Your task to perform on an android device: Add logitech g903 to the cart on newegg.com, then select checkout. Image 0: 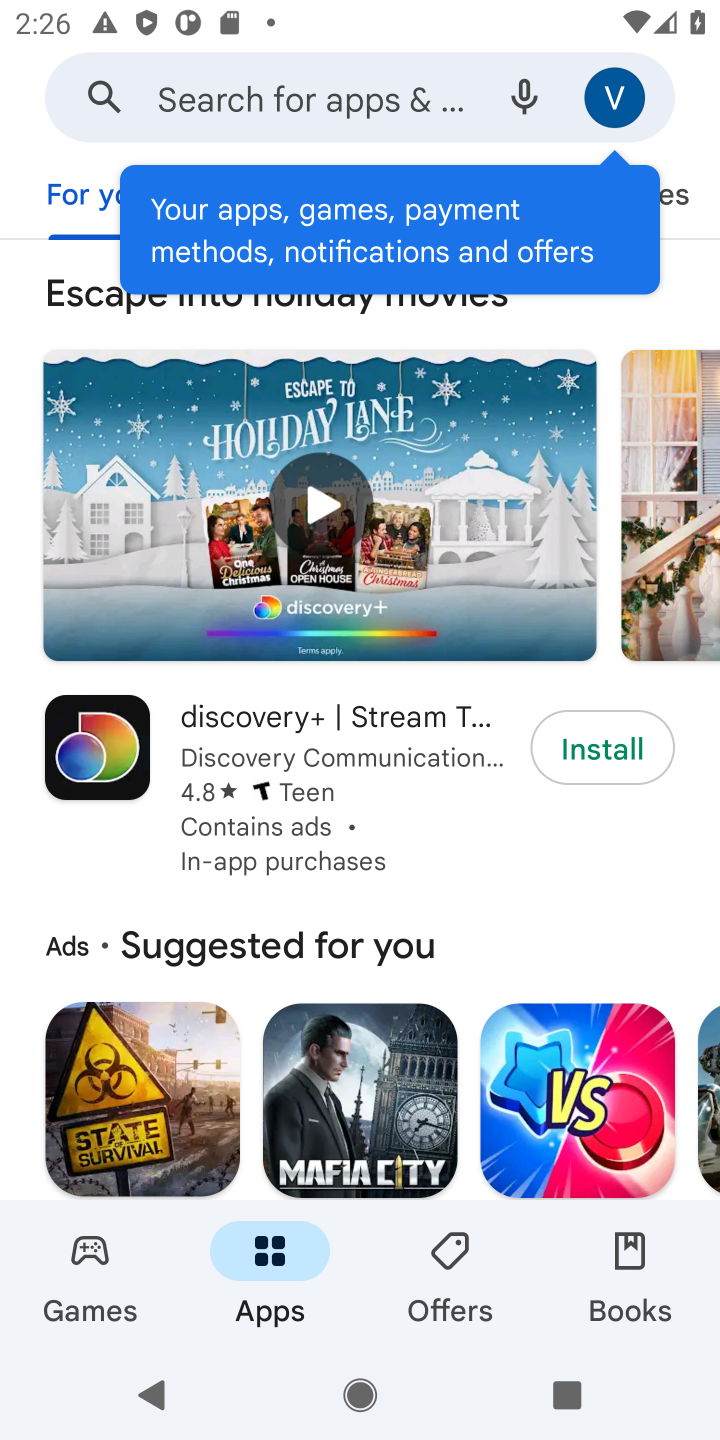
Step 0: press home button
Your task to perform on an android device: Add logitech g903 to the cart on newegg.com, then select checkout. Image 1: 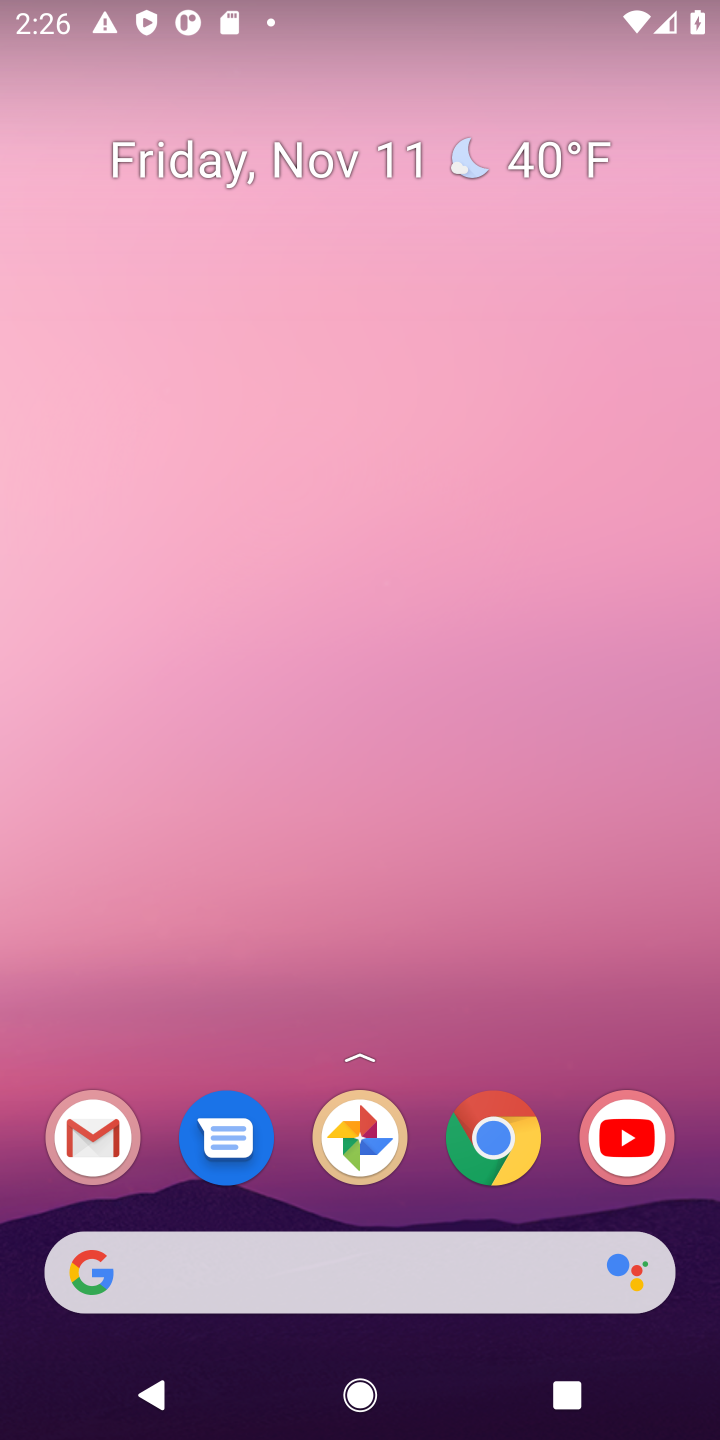
Step 1: click (487, 1167)
Your task to perform on an android device: Add logitech g903 to the cart on newegg.com, then select checkout. Image 2: 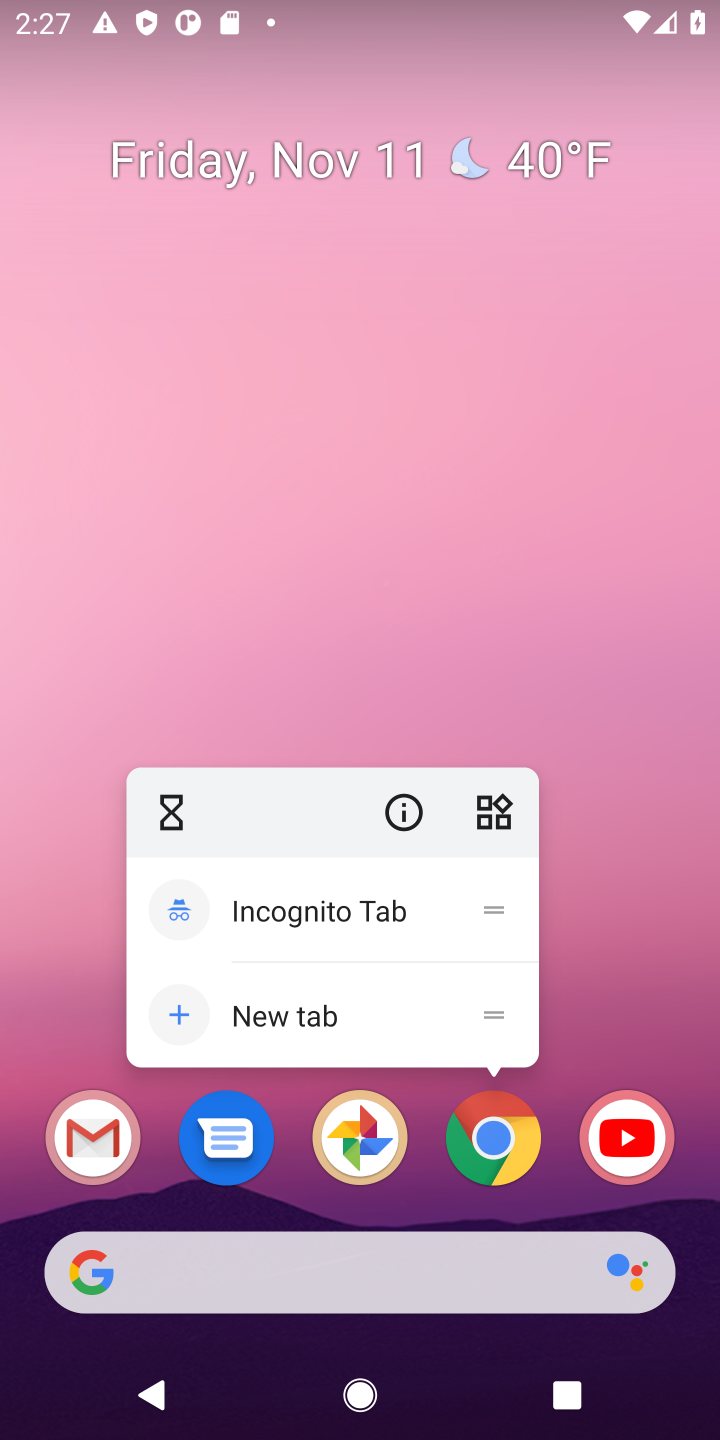
Step 2: click (488, 1167)
Your task to perform on an android device: Add logitech g903 to the cart on newegg.com, then select checkout. Image 3: 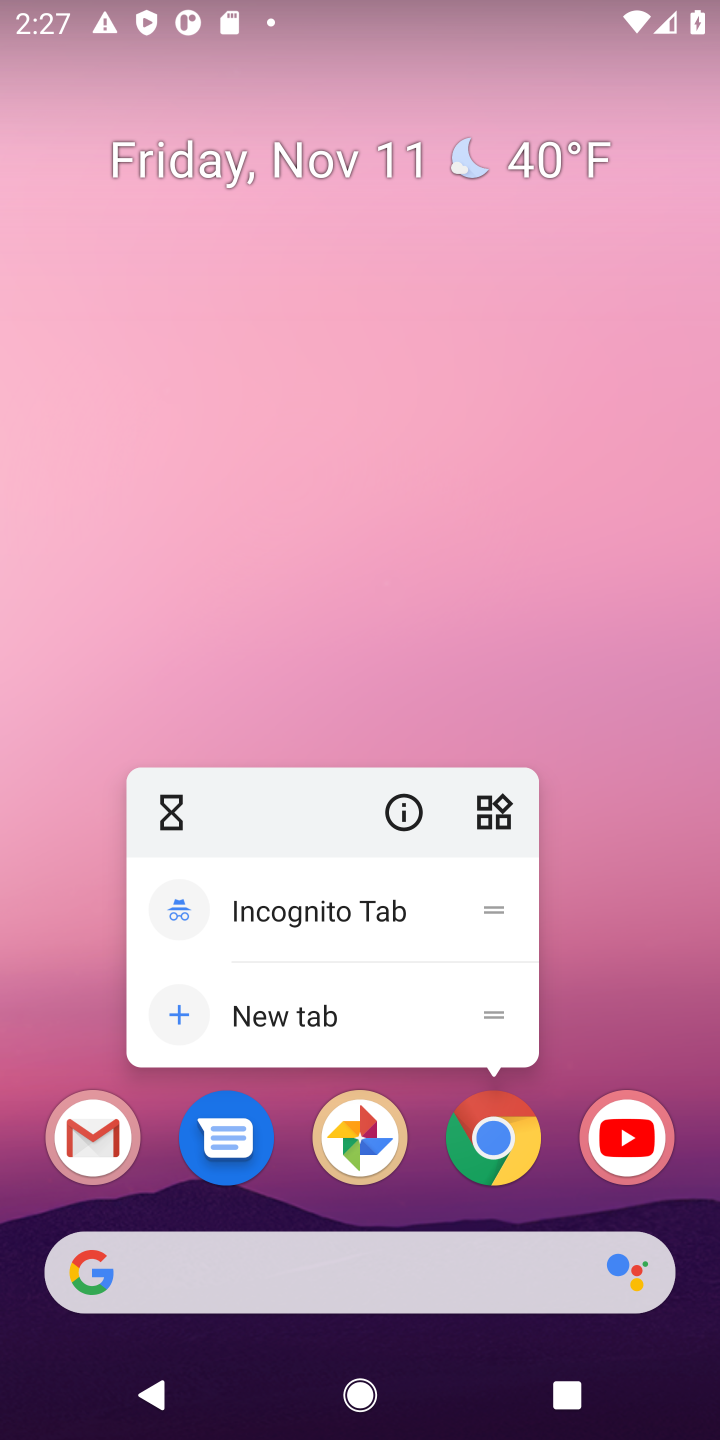
Step 3: click (493, 1133)
Your task to perform on an android device: Add logitech g903 to the cart on newegg.com, then select checkout. Image 4: 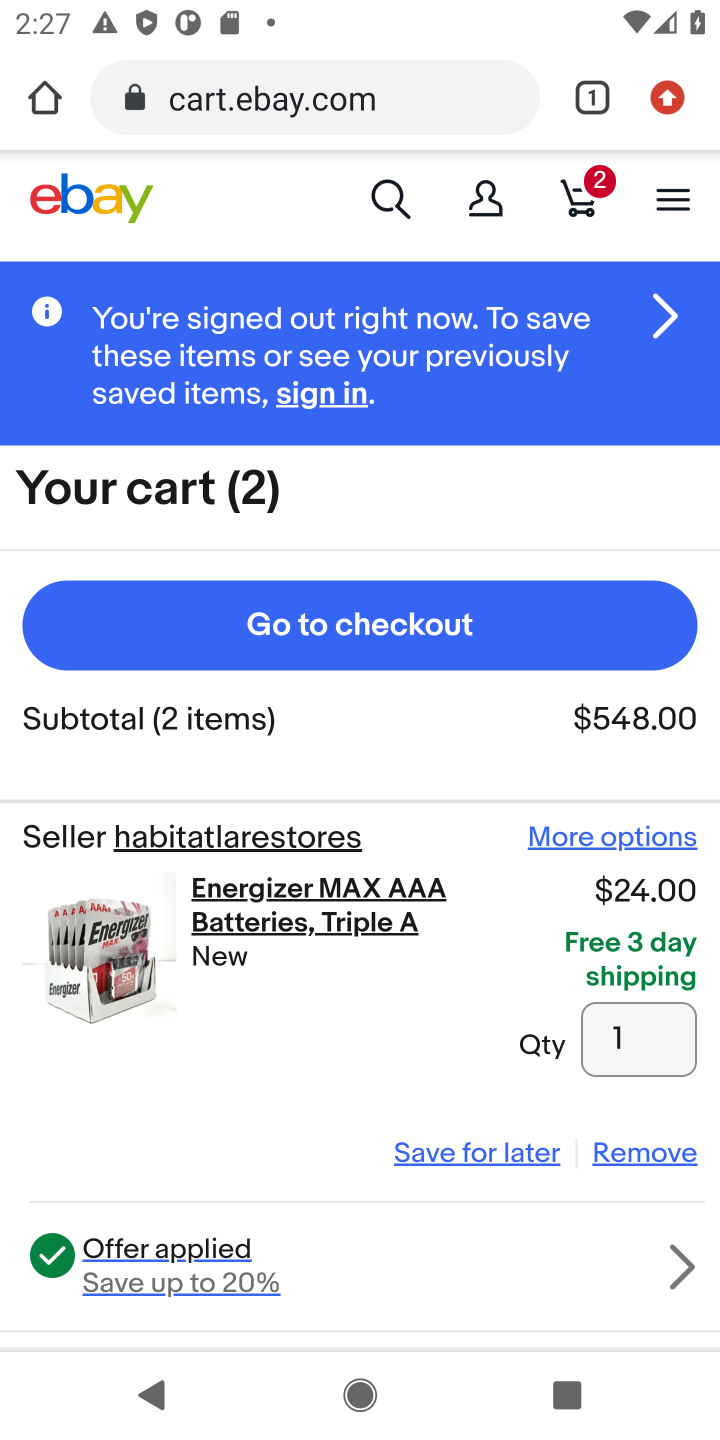
Step 4: click (268, 72)
Your task to perform on an android device: Add logitech g903 to the cart on newegg.com, then select checkout. Image 5: 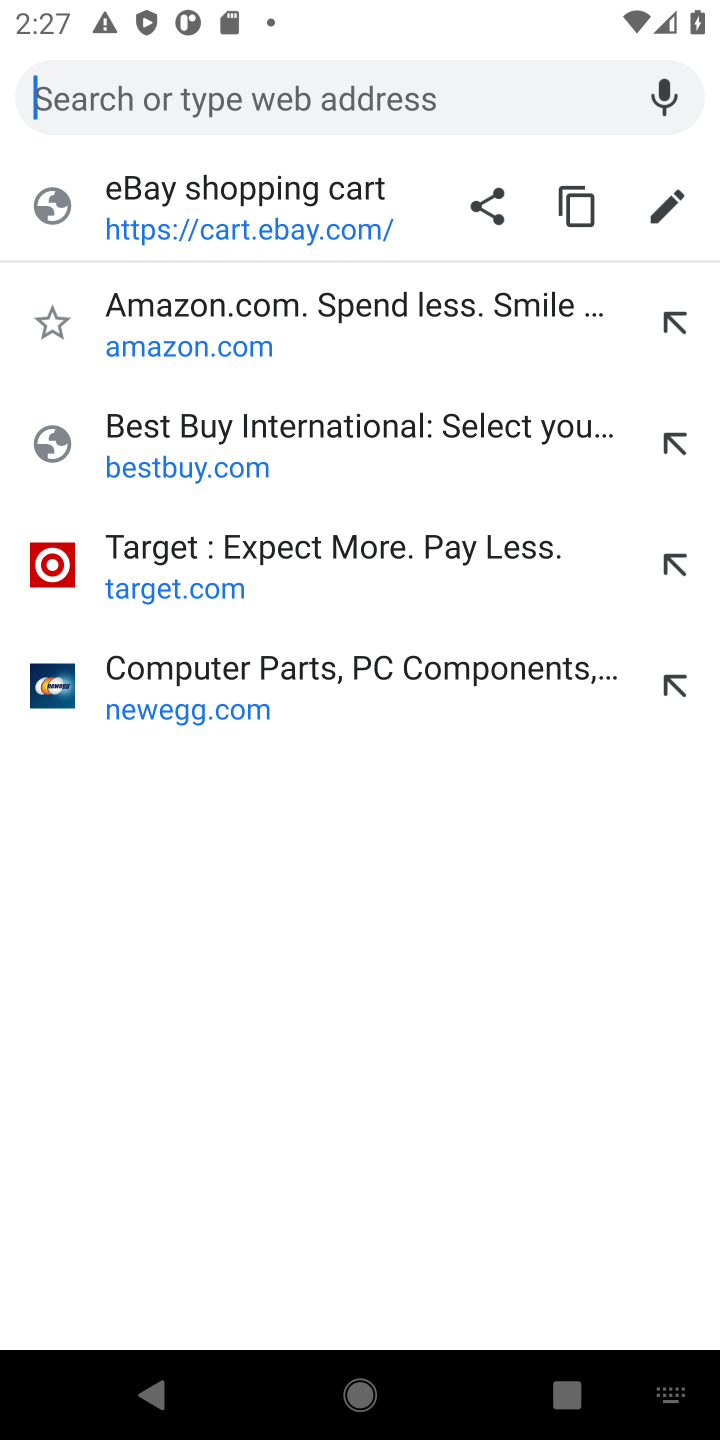
Step 5: click (350, 677)
Your task to perform on an android device: Add logitech g903 to the cart on newegg.com, then select checkout. Image 6: 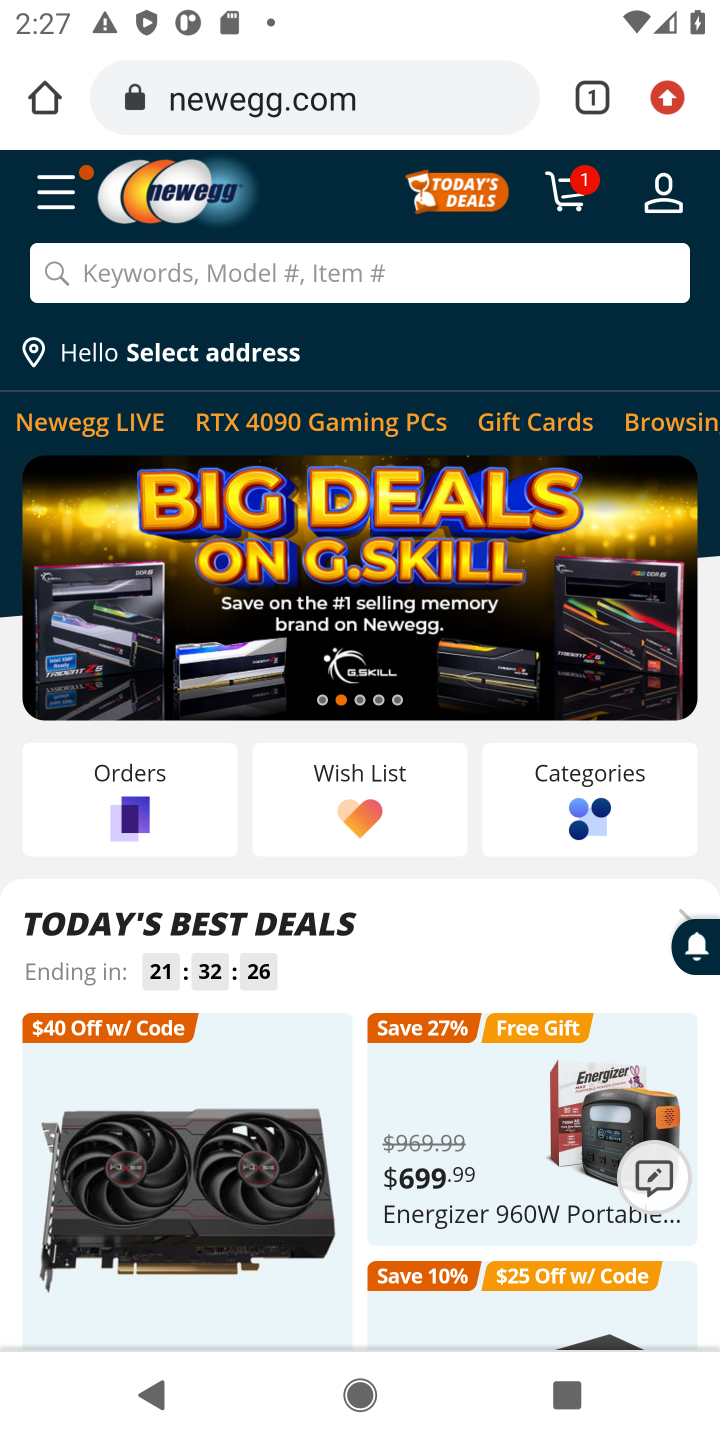
Step 6: click (302, 262)
Your task to perform on an android device: Add logitech g903 to the cart on newegg.com, then select checkout. Image 7: 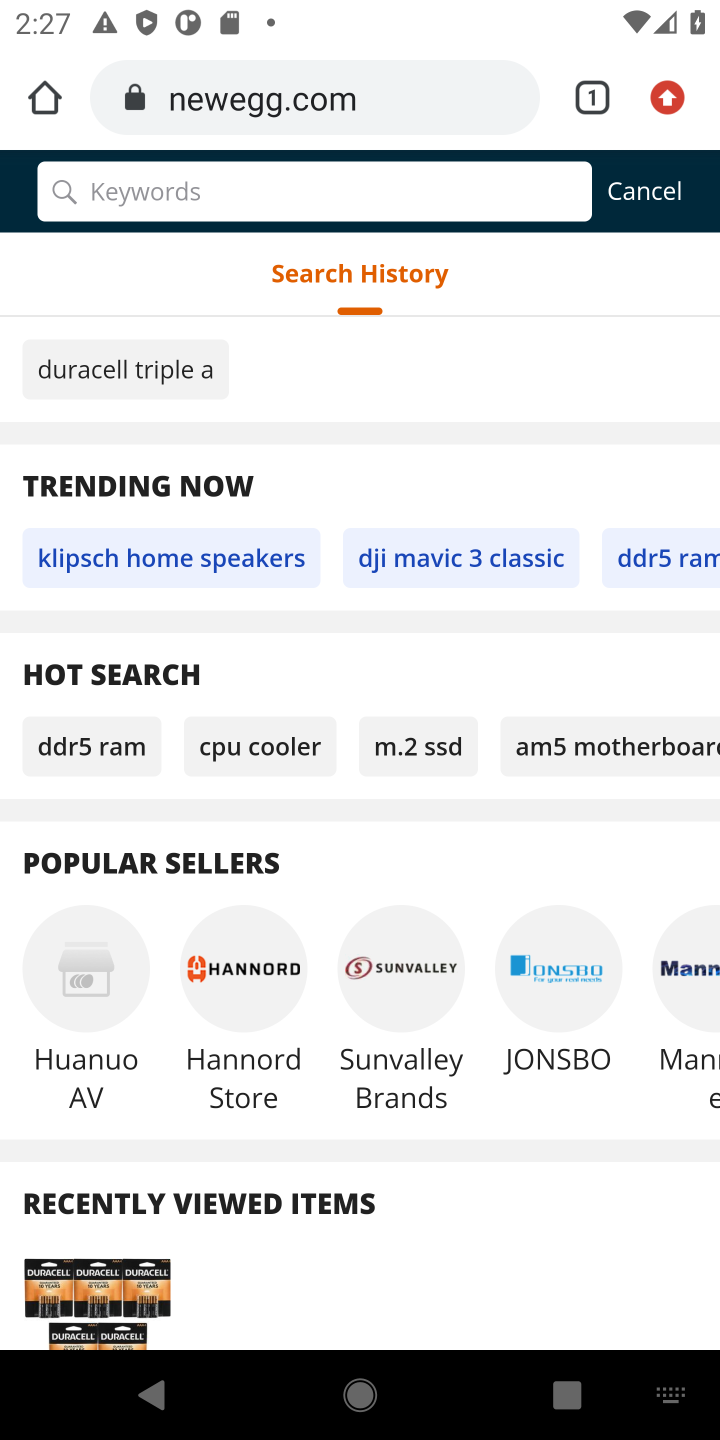
Step 7: type " logitech g903"
Your task to perform on an android device: Add logitech g903 to the cart on newegg.com, then select checkout. Image 8: 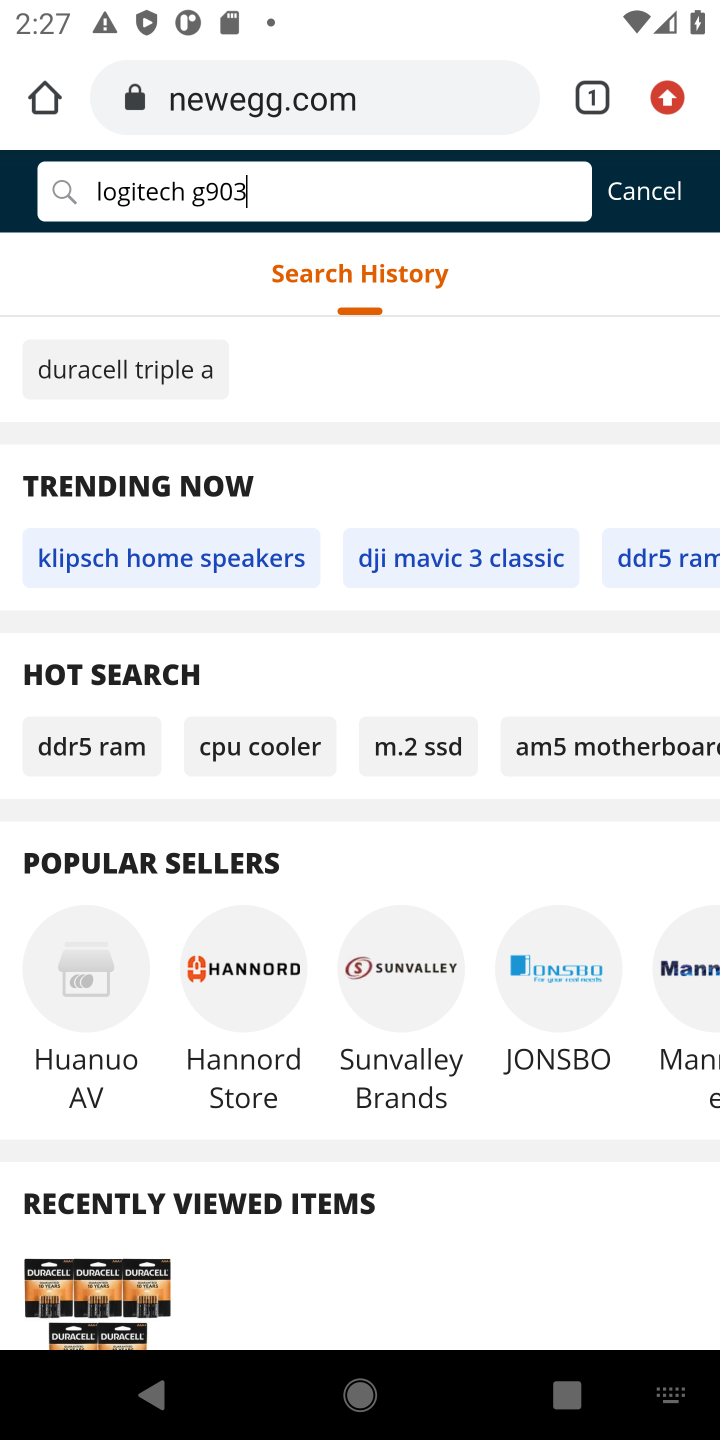
Step 8: press enter
Your task to perform on an android device: Add logitech g903 to the cart on newegg.com, then select checkout. Image 9: 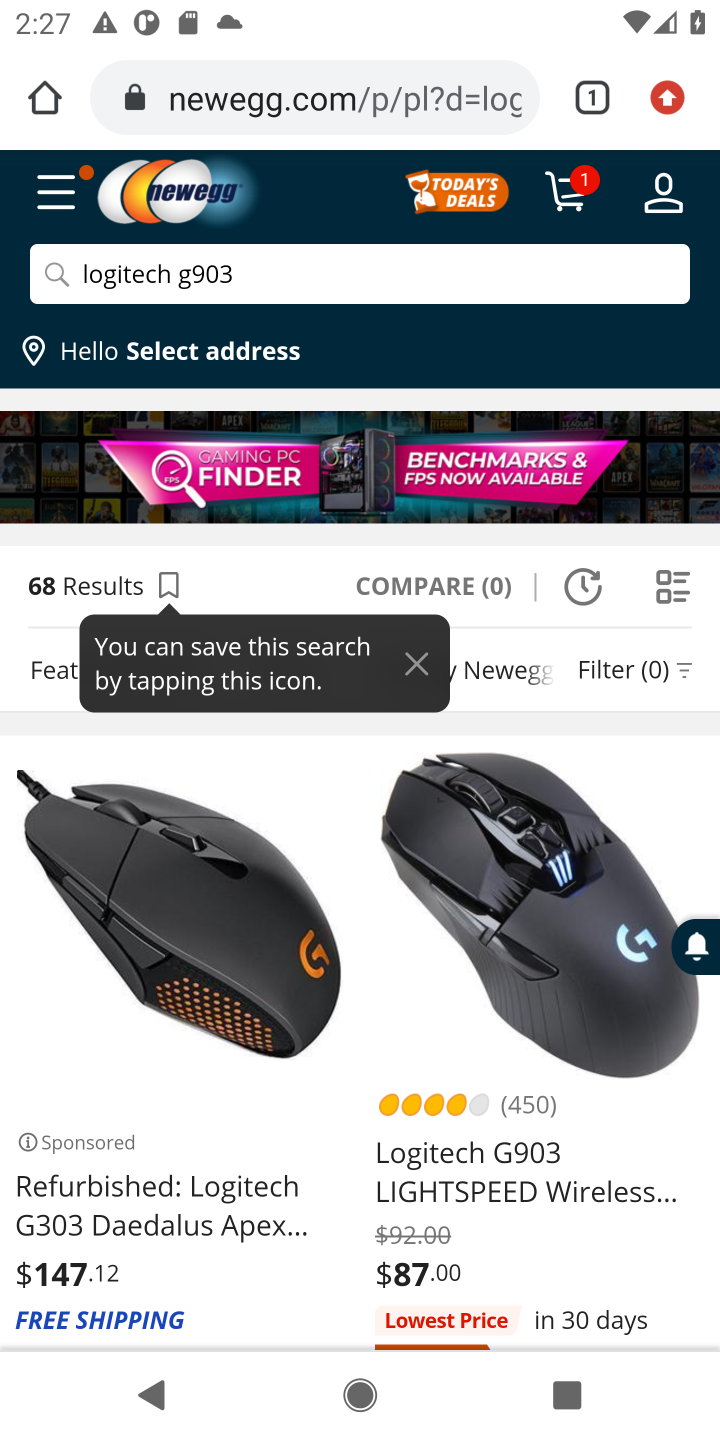
Step 9: click (536, 1009)
Your task to perform on an android device: Add logitech g903 to the cart on newegg.com, then select checkout. Image 10: 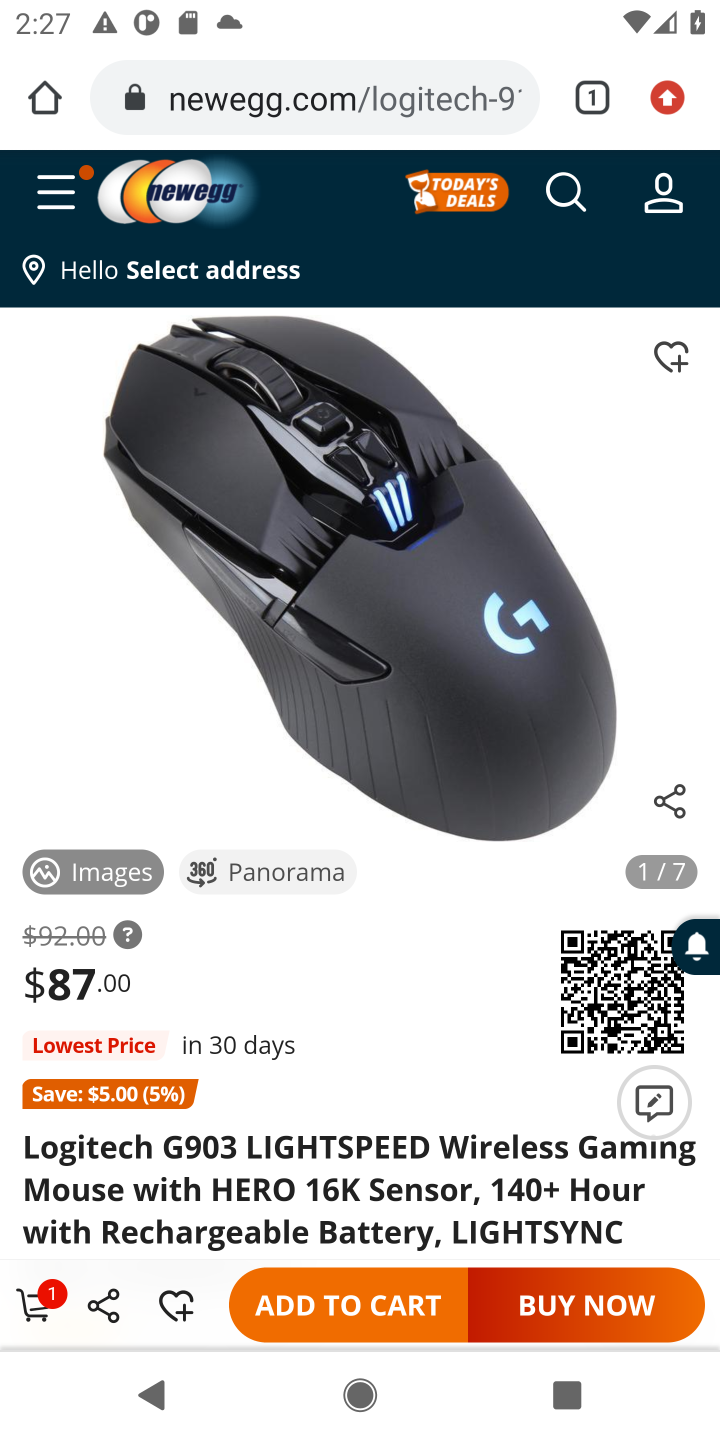
Step 10: drag from (524, 1046) to (470, 571)
Your task to perform on an android device: Add logitech g903 to the cart on newegg.com, then select checkout. Image 11: 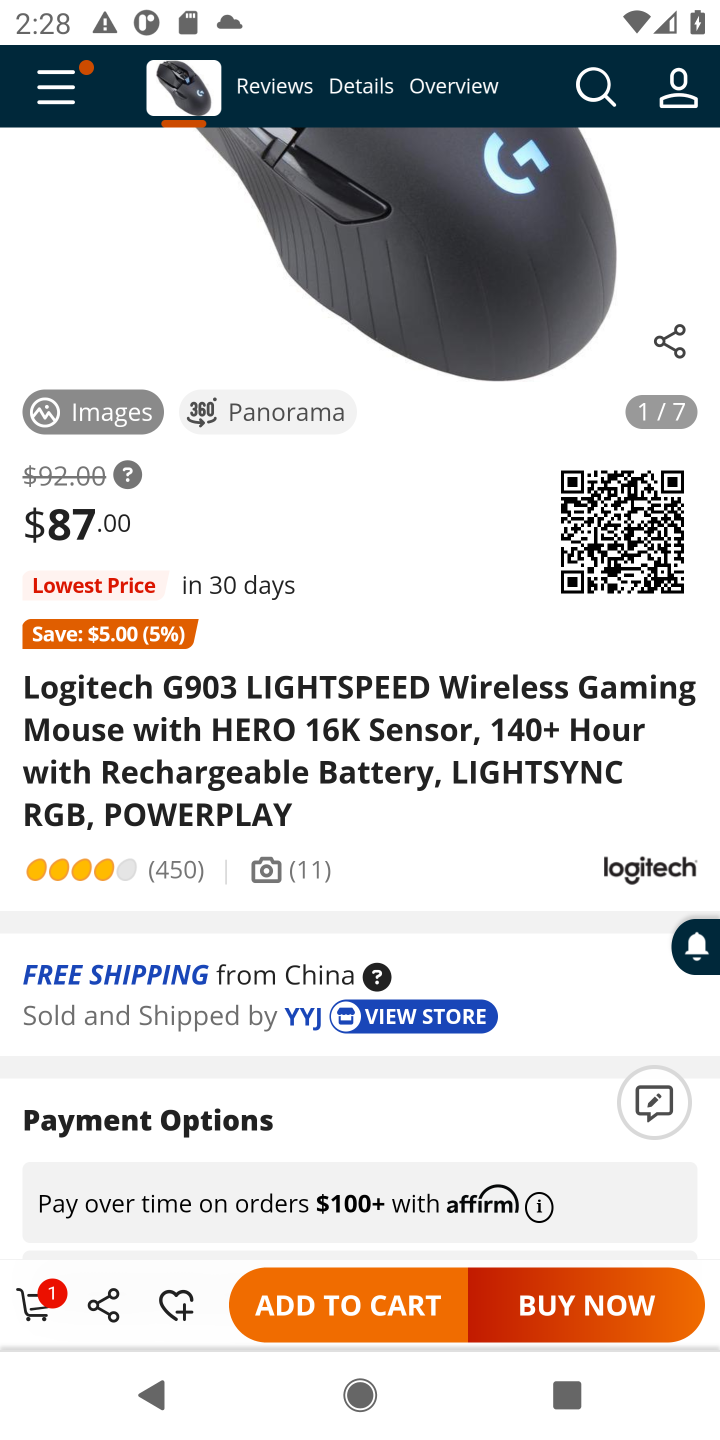
Step 11: drag from (478, 796) to (313, 284)
Your task to perform on an android device: Add logitech g903 to the cart on newegg.com, then select checkout. Image 12: 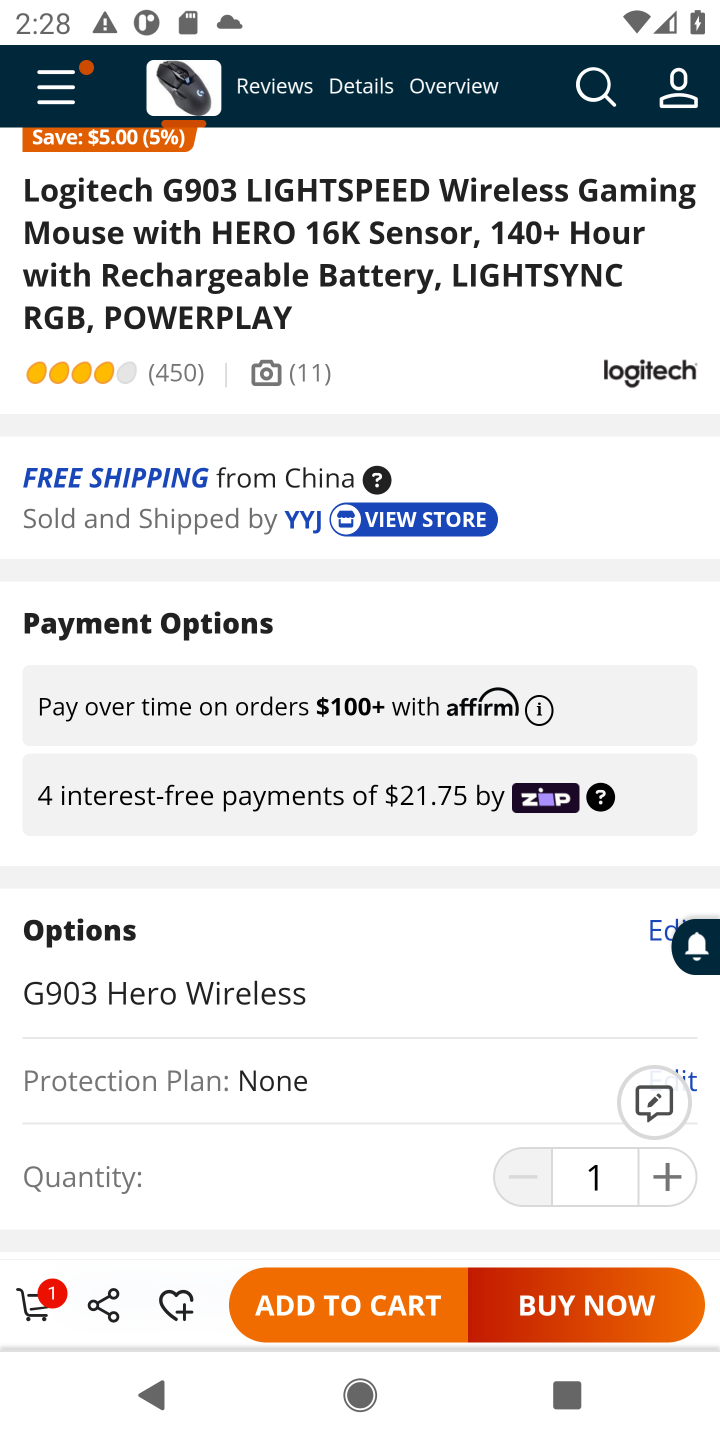
Step 12: drag from (470, 1053) to (373, 597)
Your task to perform on an android device: Add logitech g903 to the cart on newegg.com, then select checkout. Image 13: 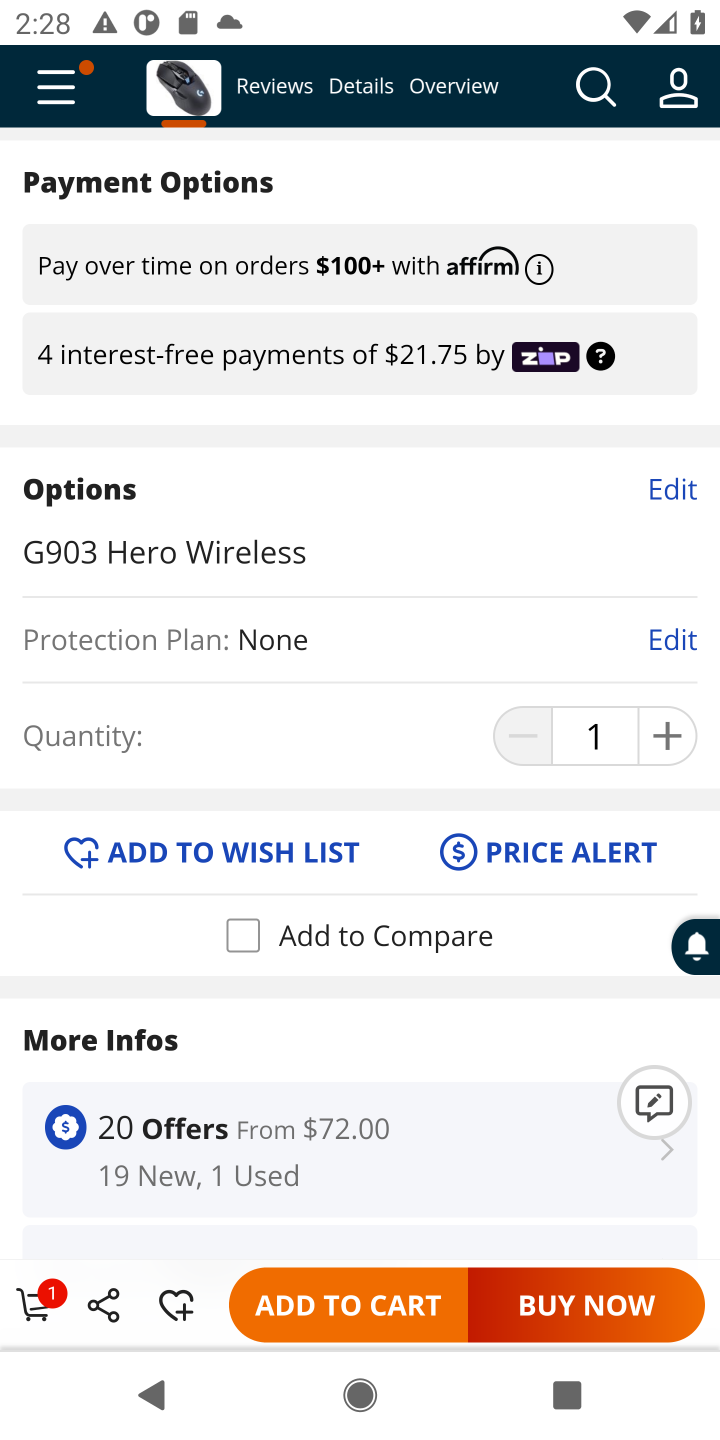
Step 13: drag from (464, 1132) to (445, 696)
Your task to perform on an android device: Add logitech g903 to the cart on newegg.com, then select checkout. Image 14: 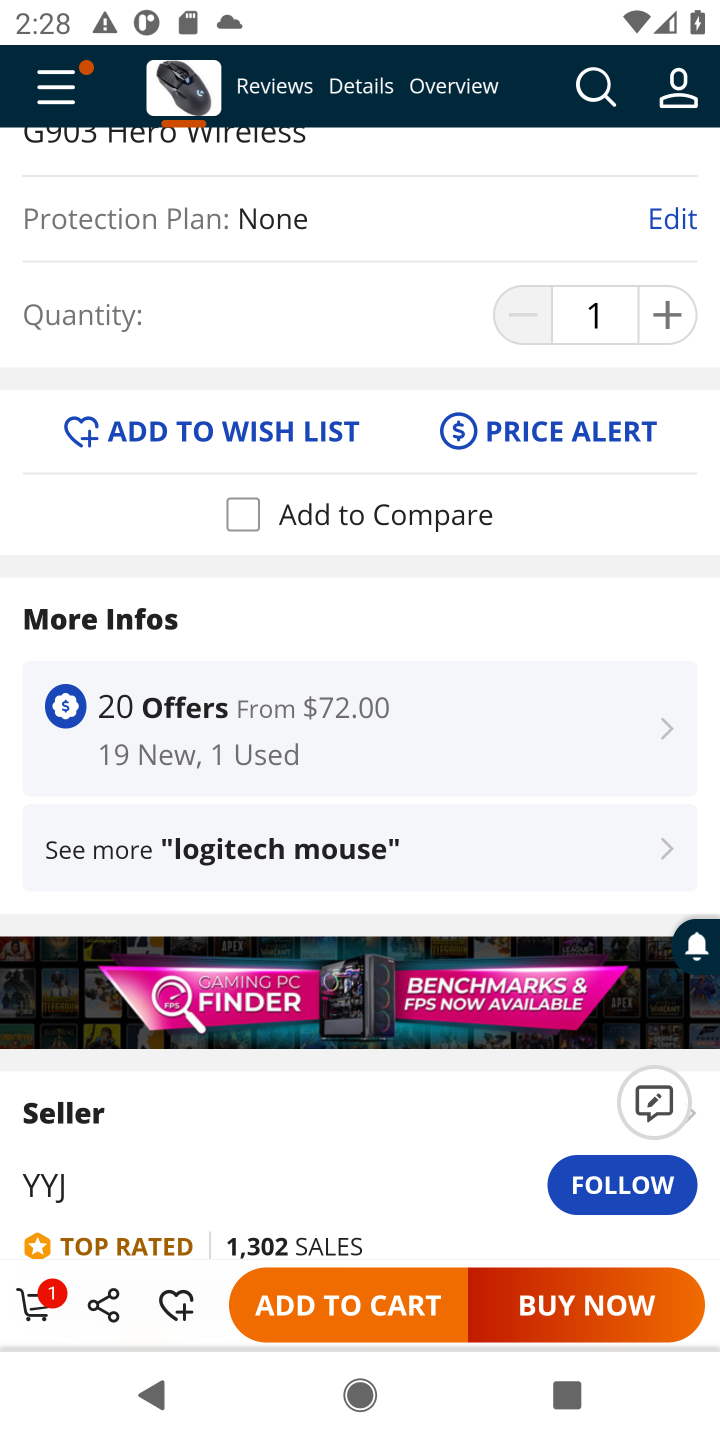
Step 14: click (368, 1311)
Your task to perform on an android device: Add logitech g903 to the cart on newegg.com, then select checkout. Image 15: 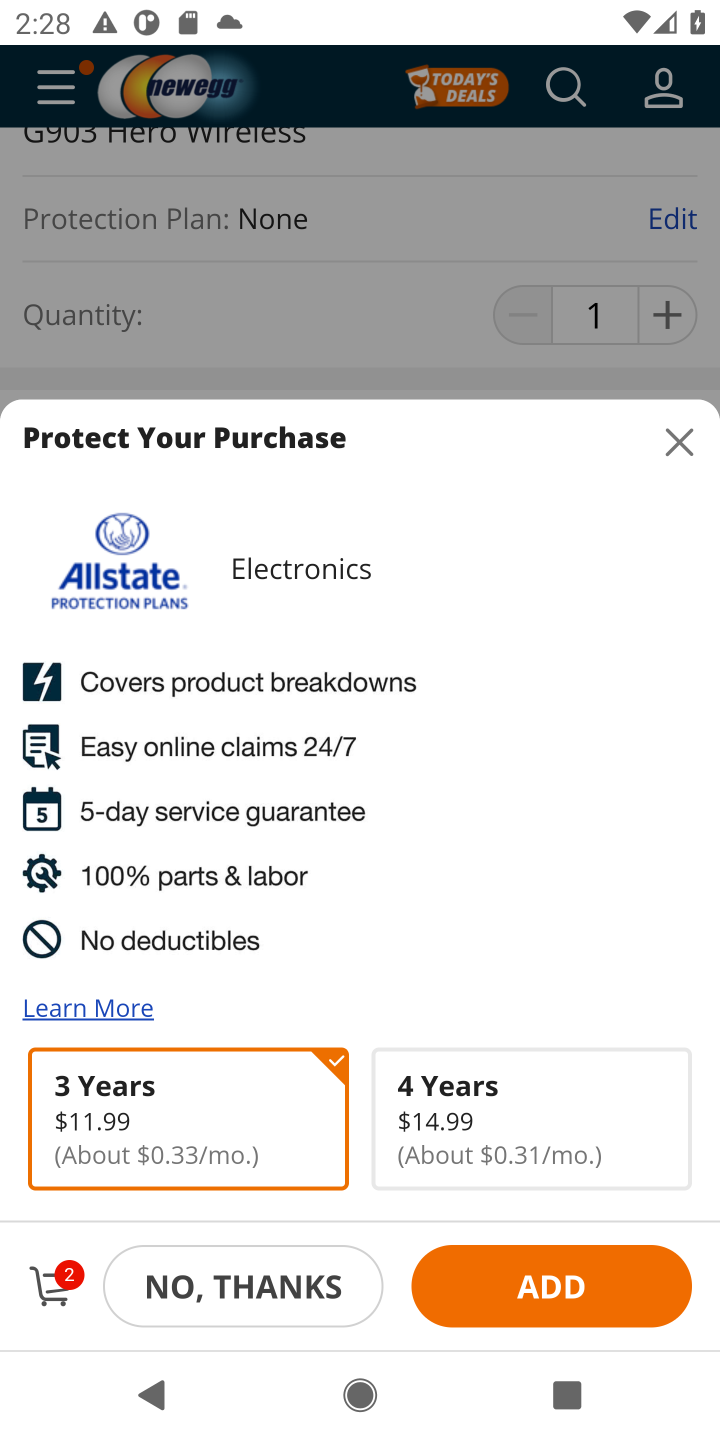
Step 15: click (671, 445)
Your task to perform on an android device: Add logitech g903 to the cart on newegg.com, then select checkout. Image 16: 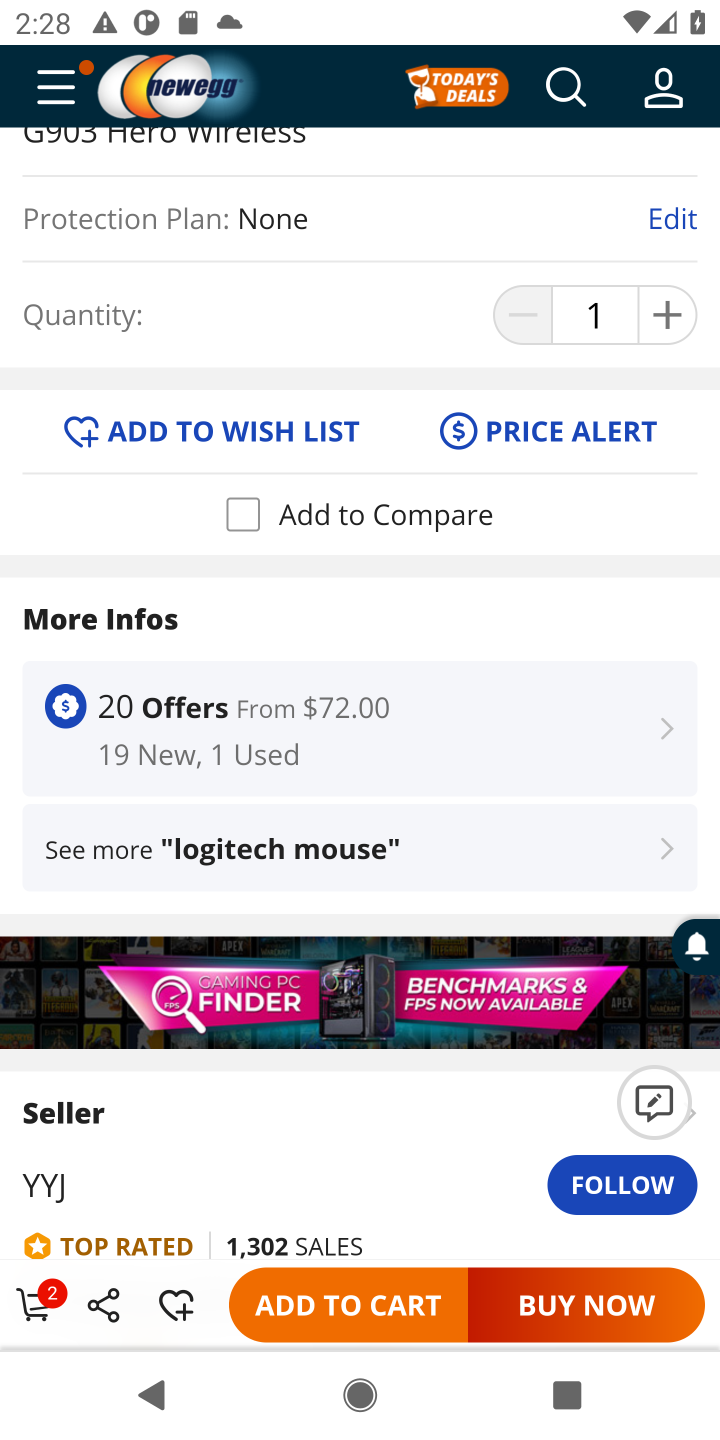
Step 16: click (21, 1300)
Your task to perform on an android device: Add logitech g903 to the cart on newegg.com, then select checkout. Image 17: 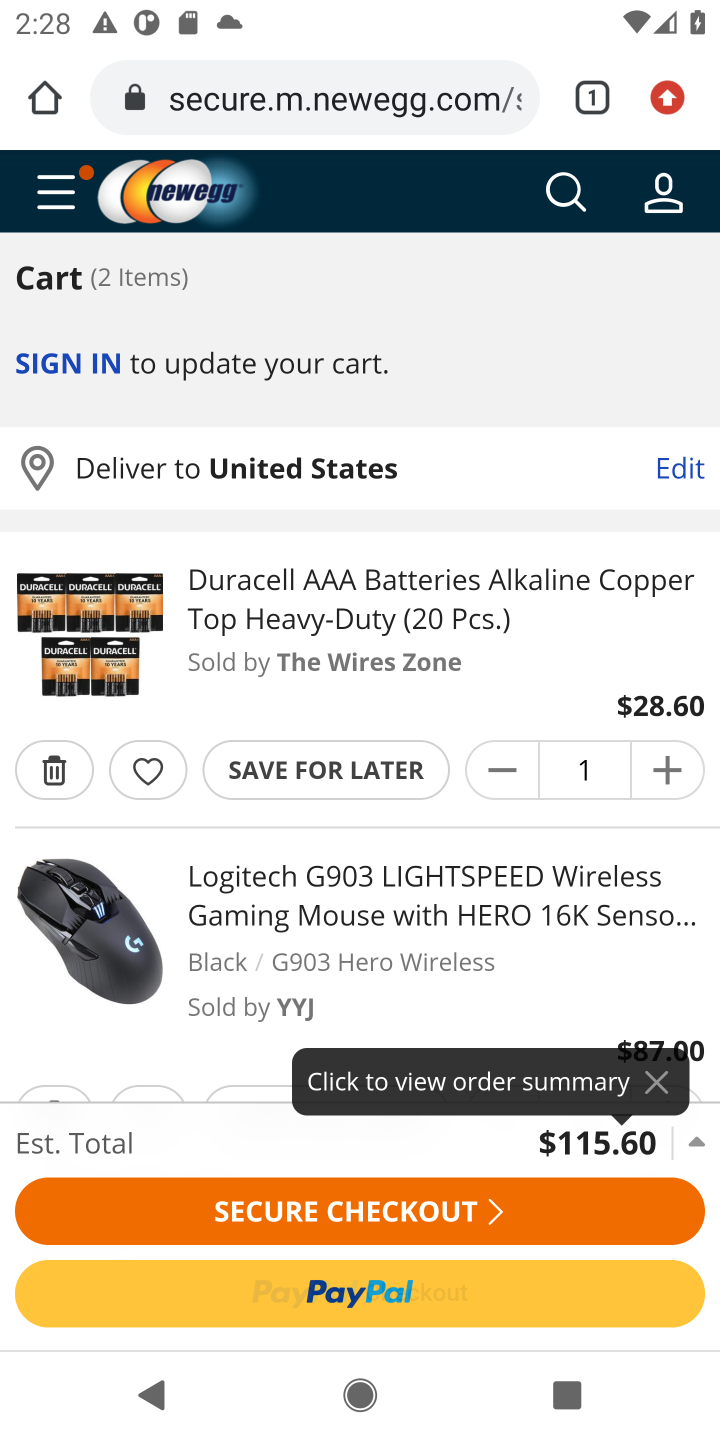
Step 17: click (377, 1217)
Your task to perform on an android device: Add logitech g903 to the cart on newegg.com, then select checkout. Image 18: 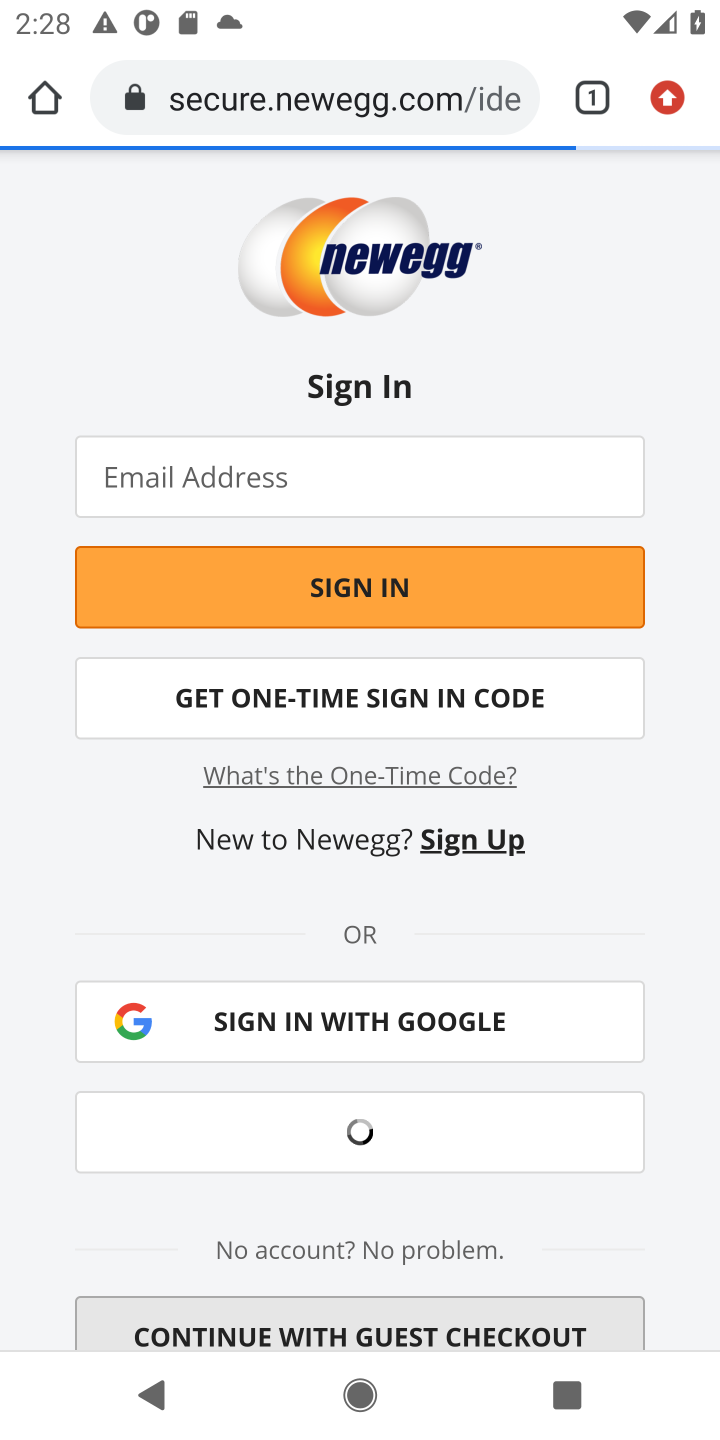
Step 18: task complete